Your task to perform on an android device: manage bookmarks in the chrome app Image 0: 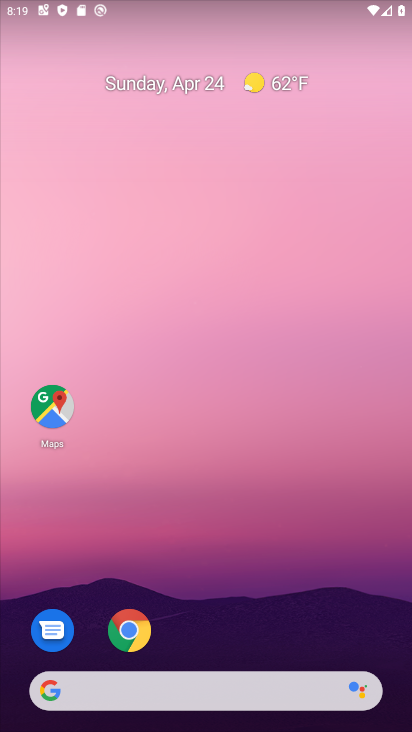
Step 0: drag from (285, 575) to (240, 18)
Your task to perform on an android device: manage bookmarks in the chrome app Image 1: 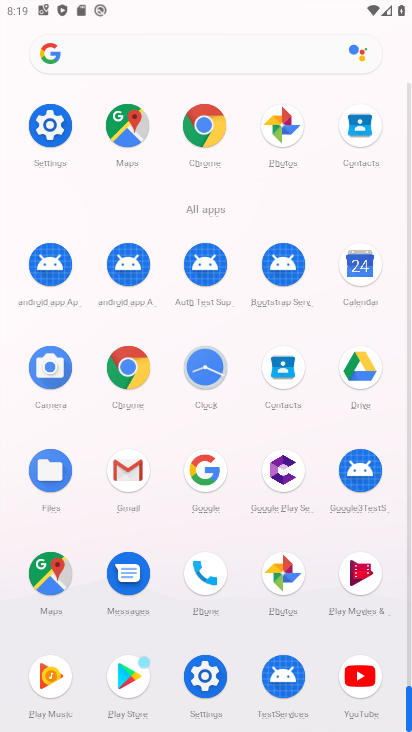
Step 1: drag from (11, 619) to (17, 376)
Your task to perform on an android device: manage bookmarks in the chrome app Image 2: 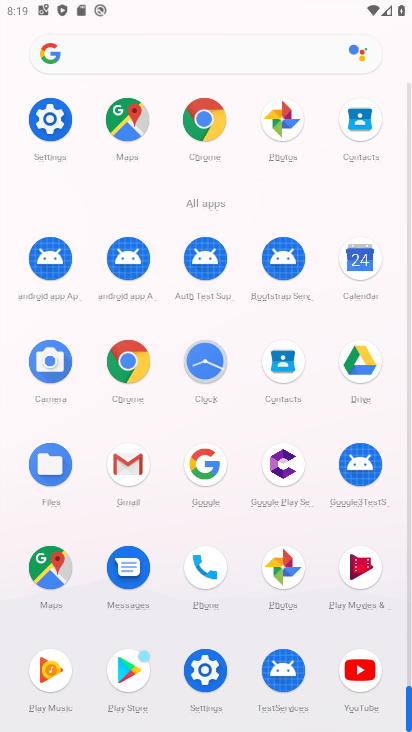
Step 2: click (130, 356)
Your task to perform on an android device: manage bookmarks in the chrome app Image 3: 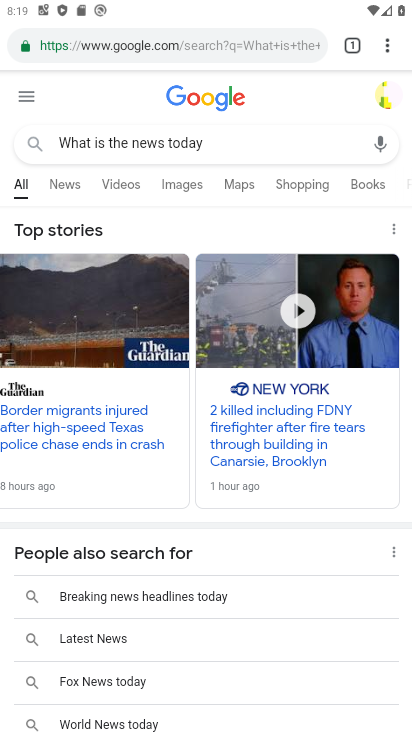
Step 3: drag from (390, 51) to (250, 215)
Your task to perform on an android device: manage bookmarks in the chrome app Image 4: 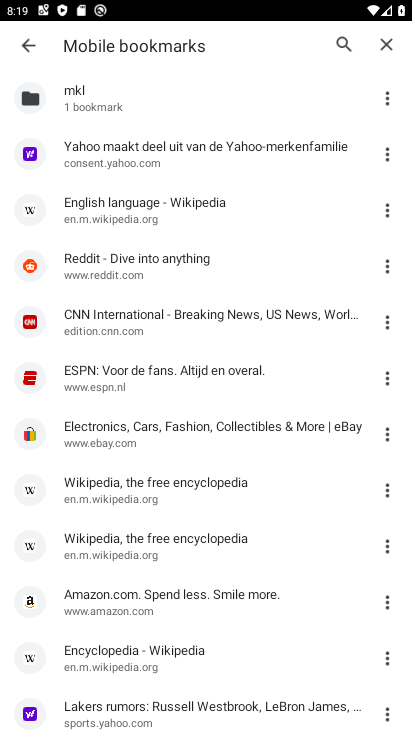
Step 4: click (389, 106)
Your task to perform on an android device: manage bookmarks in the chrome app Image 5: 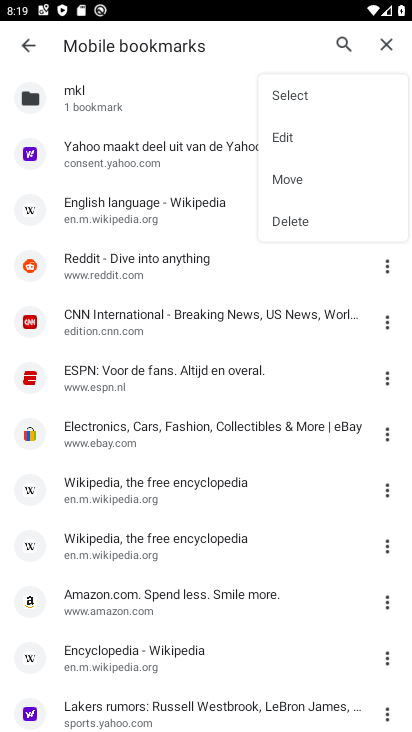
Step 5: click (293, 211)
Your task to perform on an android device: manage bookmarks in the chrome app Image 6: 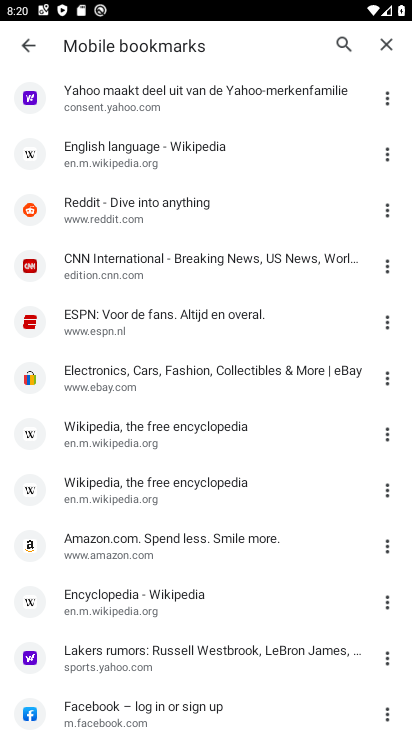
Step 6: click (391, 602)
Your task to perform on an android device: manage bookmarks in the chrome app Image 7: 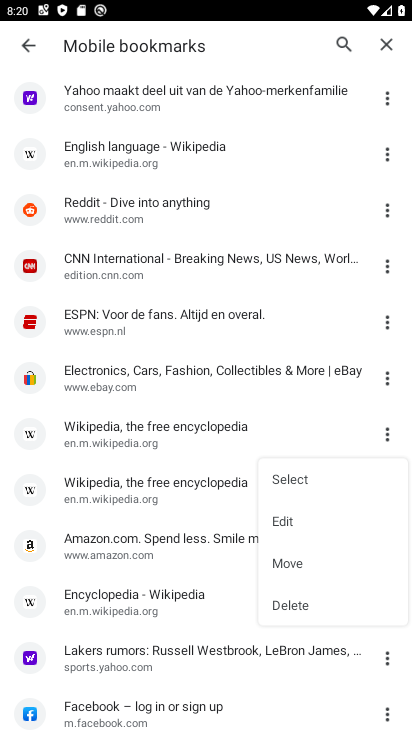
Step 7: click (327, 607)
Your task to perform on an android device: manage bookmarks in the chrome app Image 8: 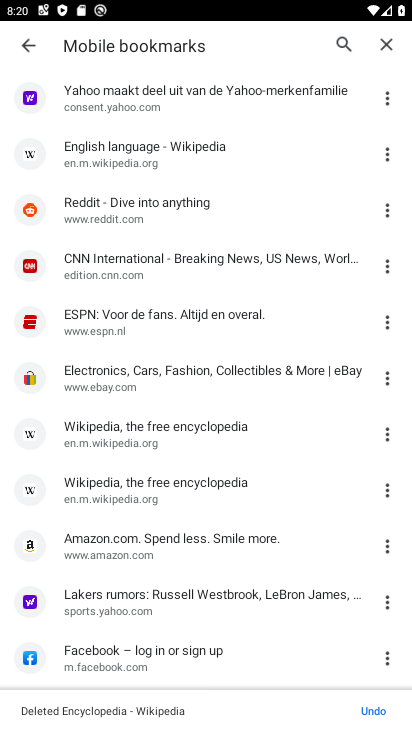
Step 8: click (378, 658)
Your task to perform on an android device: manage bookmarks in the chrome app Image 9: 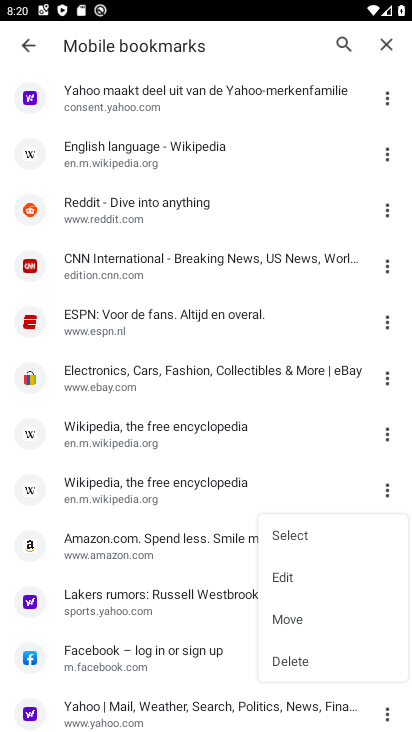
Step 9: click (338, 657)
Your task to perform on an android device: manage bookmarks in the chrome app Image 10: 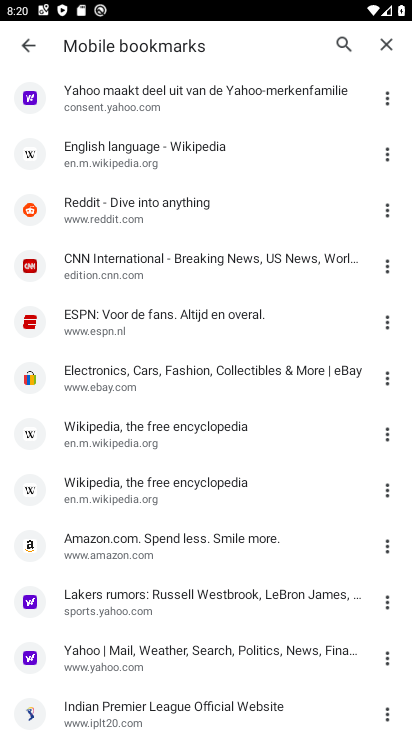
Step 10: task complete